Your task to perform on an android device: uninstall "Cash App" Image 0: 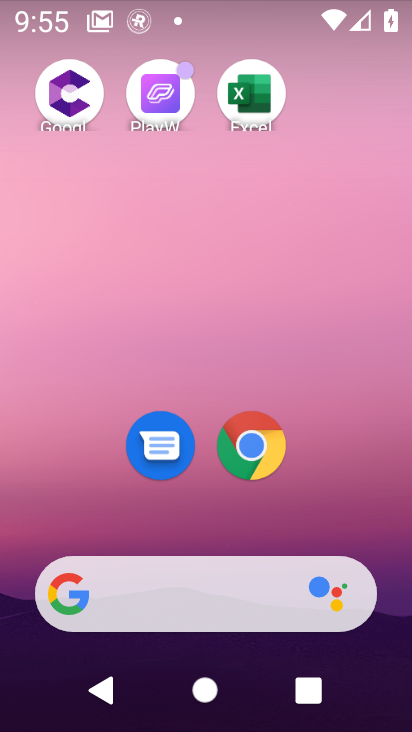
Step 0: drag from (305, 4) to (373, 39)
Your task to perform on an android device: uninstall "Cash App" Image 1: 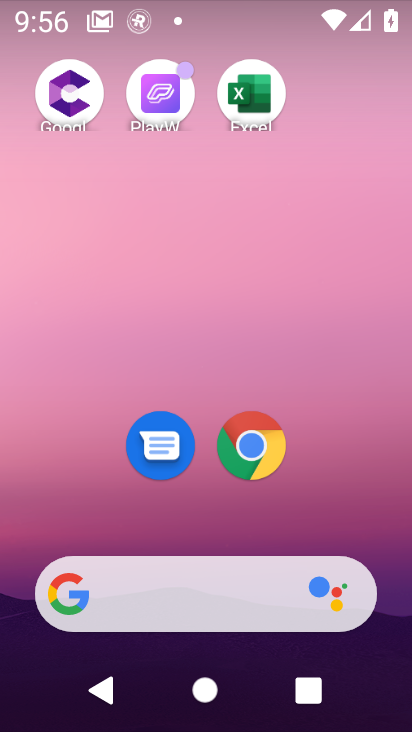
Step 1: drag from (248, 559) to (314, 74)
Your task to perform on an android device: uninstall "Cash App" Image 2: 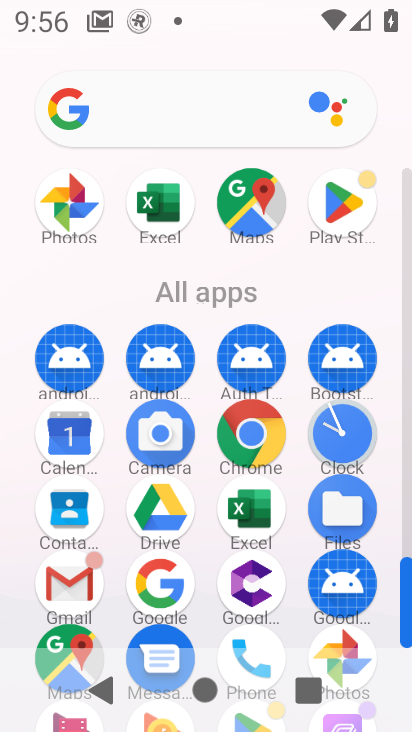
Step 2: drag from (288, 557) to (334, 85)
Your task to perform on an android device: uninstall "Cash App" Image 3: 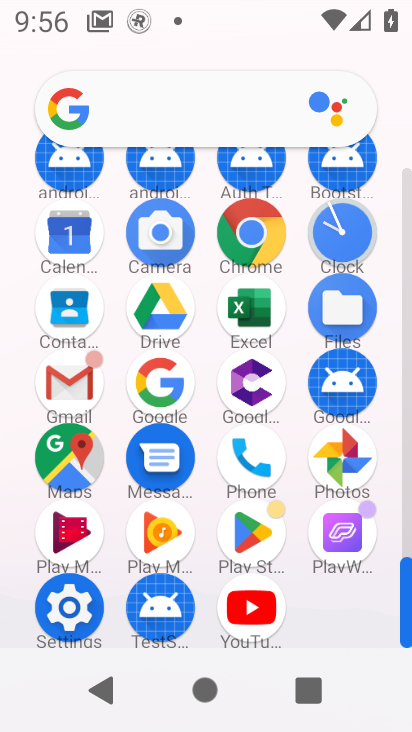
Step 3: click (240, 552)
Your task to perform on an android device: uninstall "Cash App" Image 4: 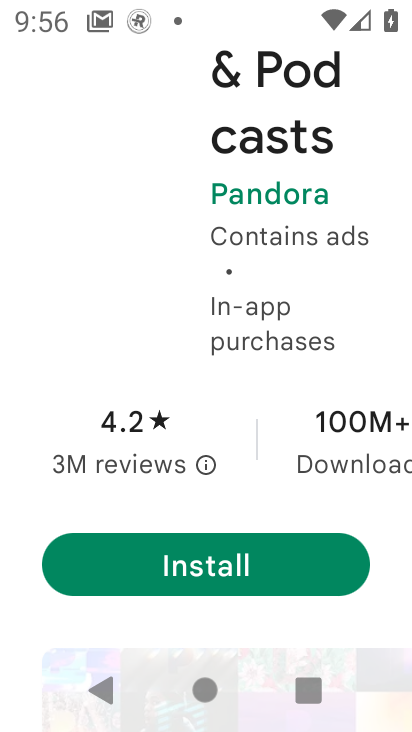
Step 4: drag from (188, 277) to (164, 659)
Your task to perform on an android device: uninstall "Cash App" Image 5: 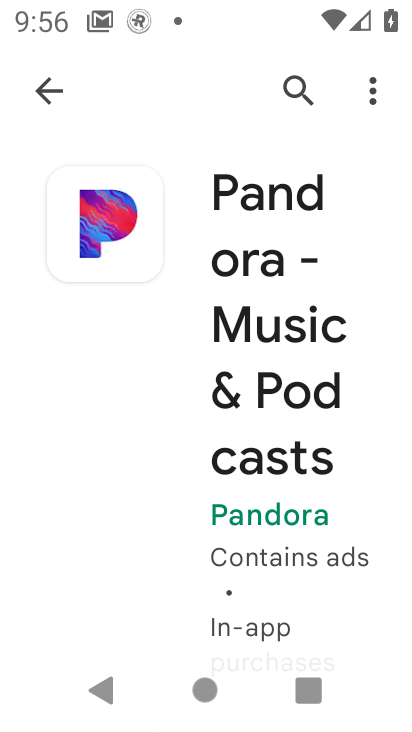
Step 5: click (50, 81)
Your task to perform on an android device: uninstall "Cash App" Image 6: 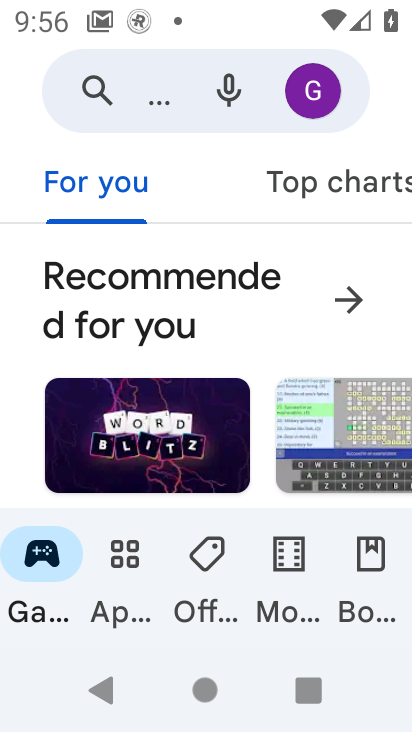
Step 6: click (119, 97)
Your task to perform on an android device: uninstall "Cash App" Image 7: 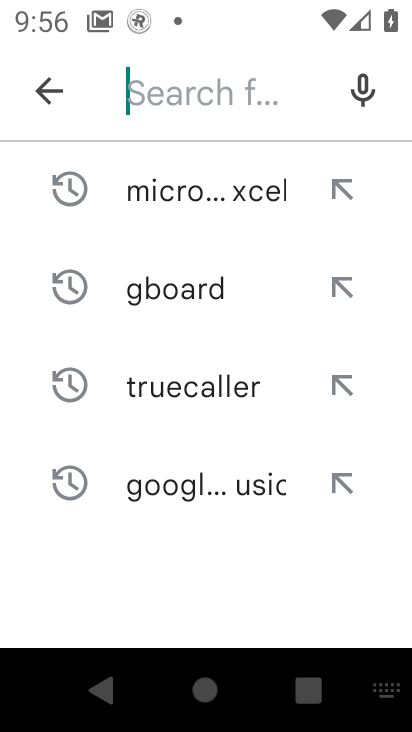
Step 7: type "Cash App"
Your task to perform on an android device: uninstall "Cash App" Image 8: 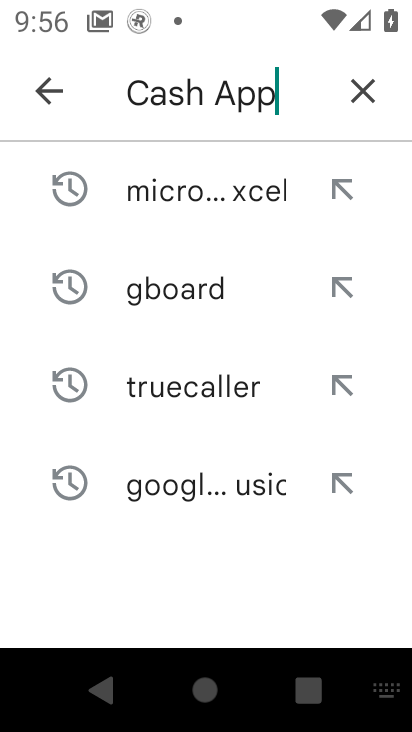
Step 8: type ""
Your task to perform on an android device: uninstall "Cash App" Image 9: 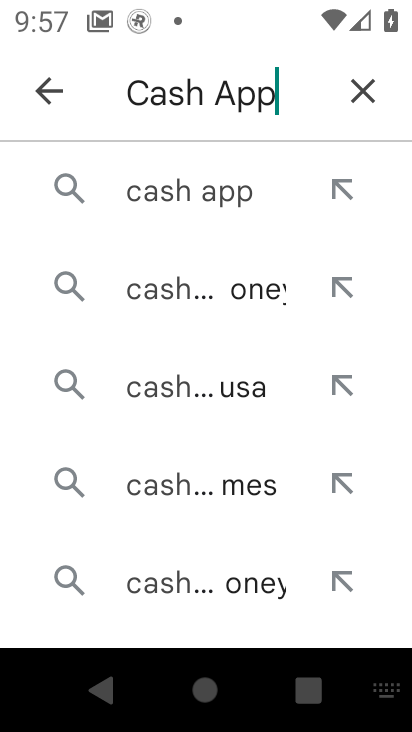
Step 9: click (197, 183)
Your task to perform on an android device: uninstall "Cash App" Image 10: 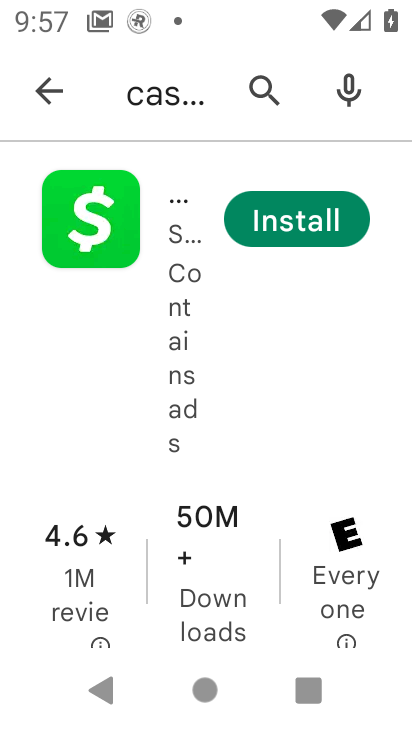
Step 10: task complete